Your task to perform on an android device: Open eBay Image 0: 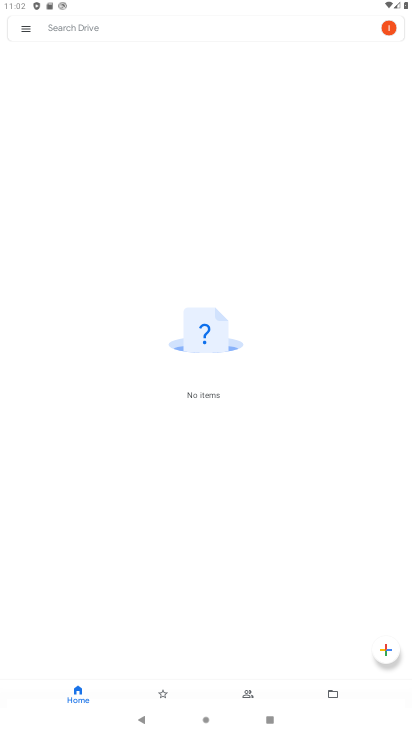
Step 0: press home button
Your task to perform on an android device: Open eBay Image 1: 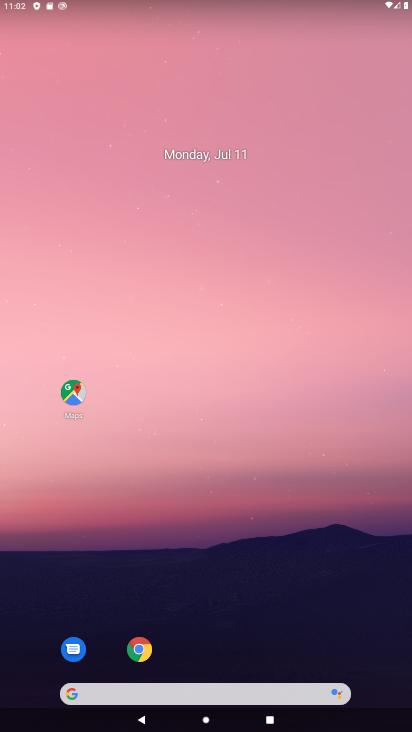
Step 1: click (138, 648)
Your task to perform on an android device: Open eBay Image 2: 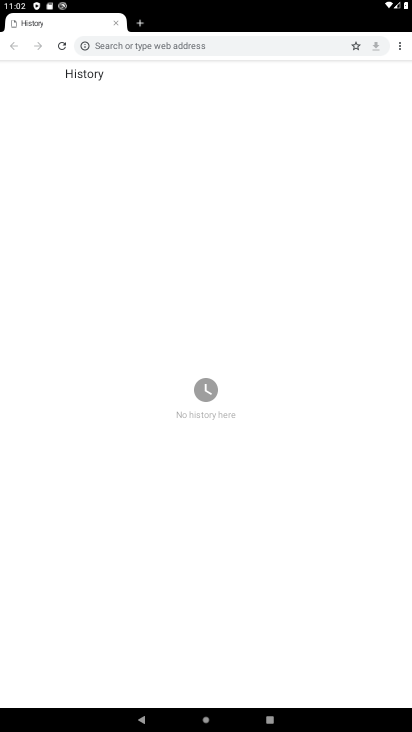
Step 2: click (244, 39)
Your task to perform on an android device: Open eBay Image 3: 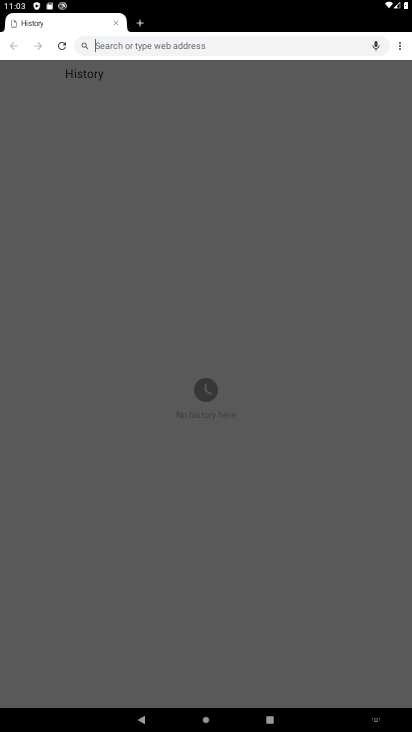
Step 3: type "eBay"
Your task to perform on an android device: Open eBay Image 4: 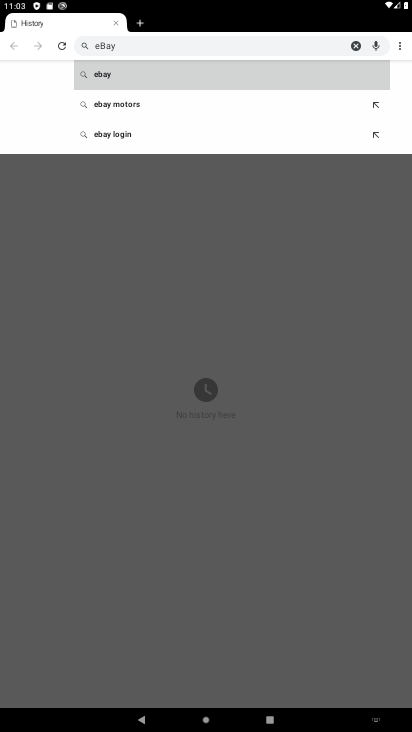
Step 4: click (124, 75)
Your task to perform on an android device: Open eBay Image 5: 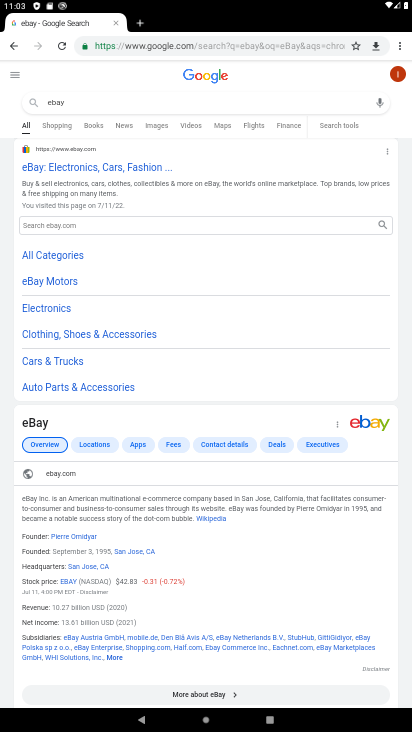
Step 5: click (88, 166)
Your task to perform on an android device: Open eBay Image 6: 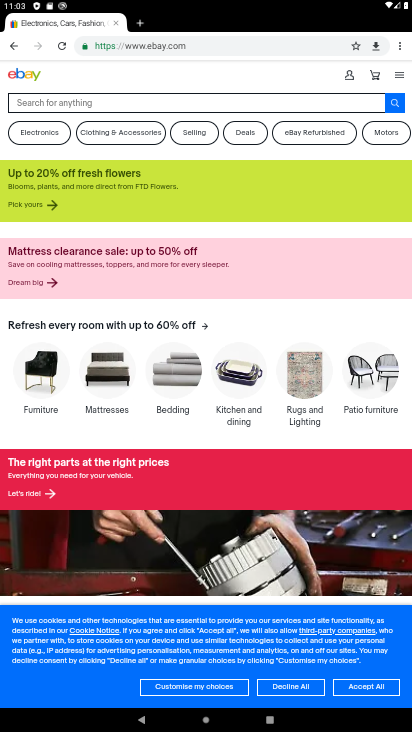
Step 6: click (292, 685)
Your task to perform on an android device: Open eBay Image 7: 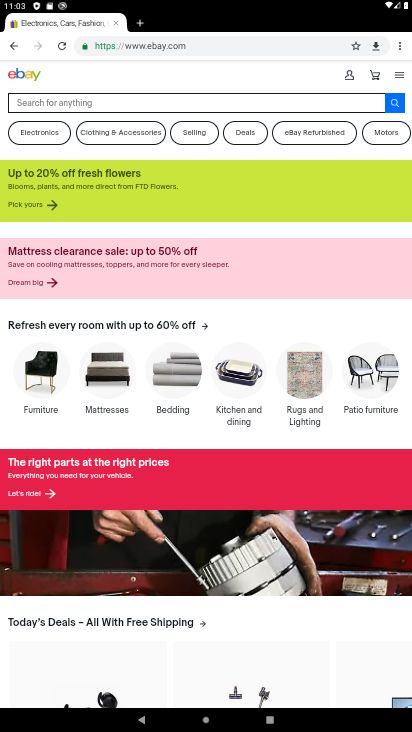
Step 7: task complete